Your task to perform on an android device: check out phone information Image 0: 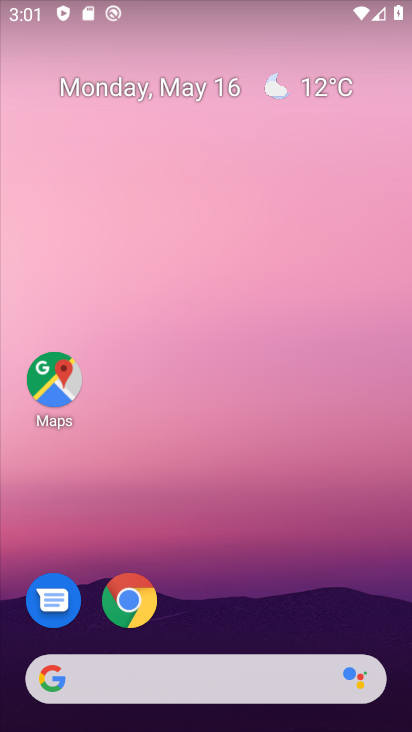
Step 0: drag from (187, 635) to (189, 0)
Your task to perform on an android device: check out phone information Image 1: 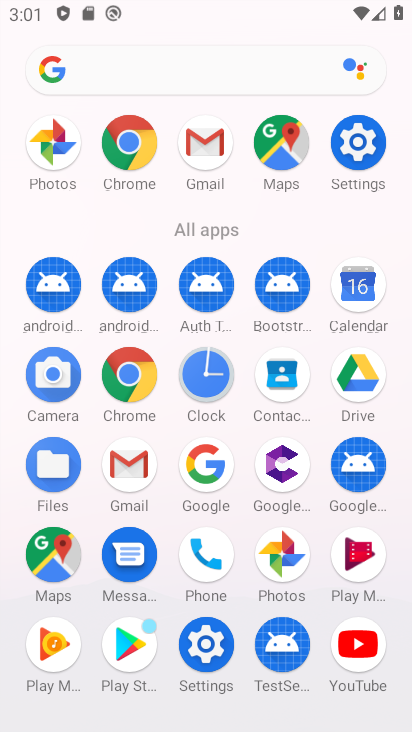
Step 1: click (365, 136)
Your task to perform on an android device: check out phone information Image 2: 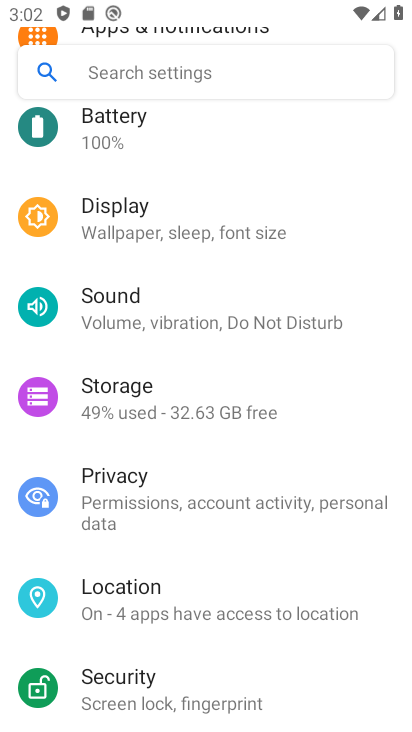
Step 2: drag from (303, 643) to (248, 2)
Your task to perform on an android device: check out phone information Image 3: 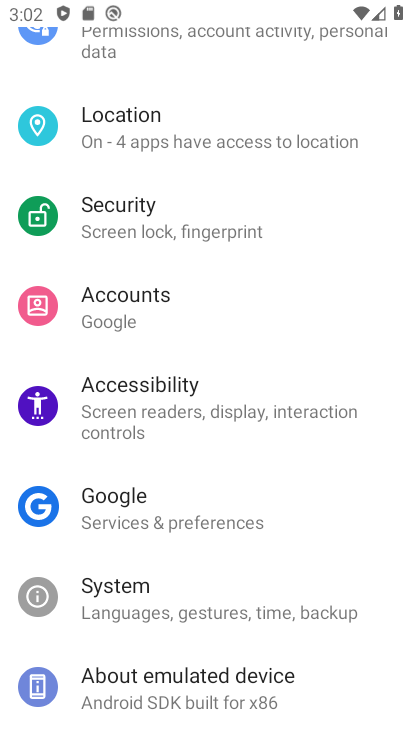
Step 3: click (158, 677)
Your task to perform on an android device: check out phone information Image 4: 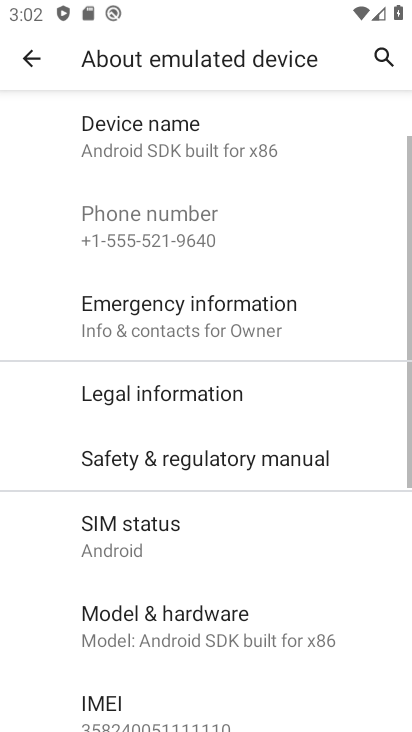
Step 4: task complete